Your task to perform on an android device: Is it going to rain today? Image 0: 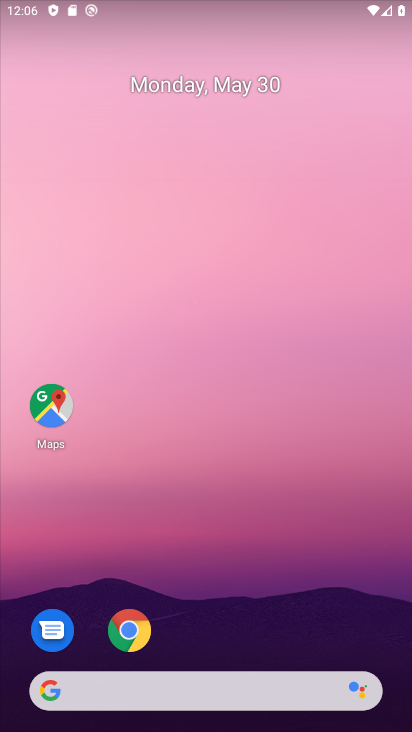
Step 0: press home button
Your task to perform on an android device: Is it going to rain today? Image 1: 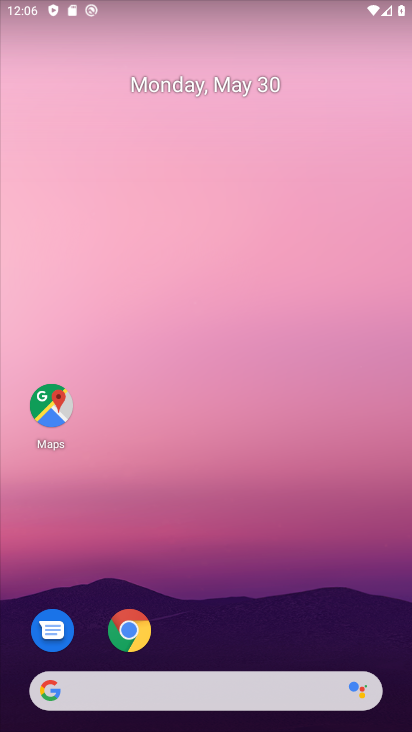
Step 1: click (320, 48)
Your task to perform on an android device: Is it going to rain today? Image 2: 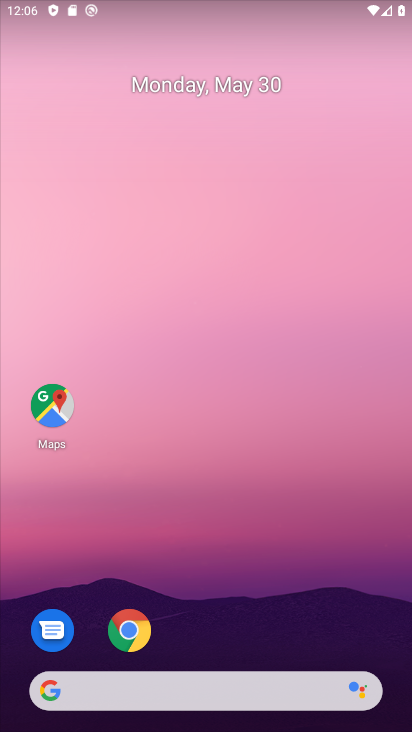
Step 2: drag from (197, 686) to (259, 145)
Your task to perform on an android device: Is it going to rain today? Image 3: 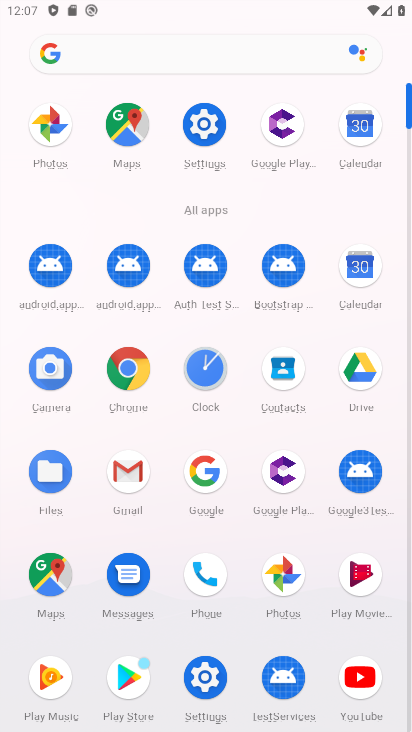
Step 3: click (207, 473)
Your task to perform on an android device: Is it going to rain today? Image 4: 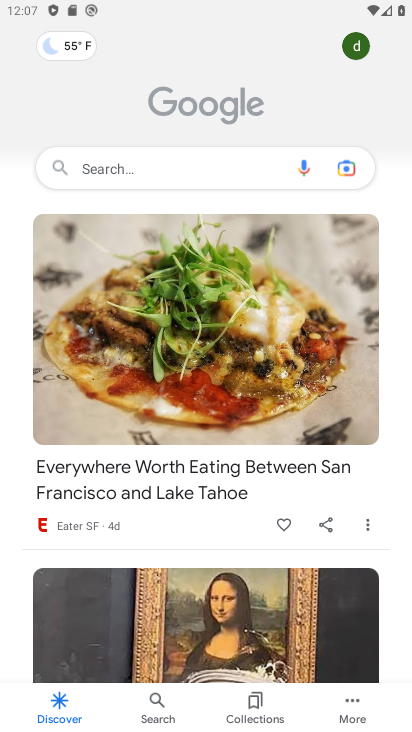
Step 4: click (73, 44)
Your task to perform on an android device: Is it going to rain today? Image 5: 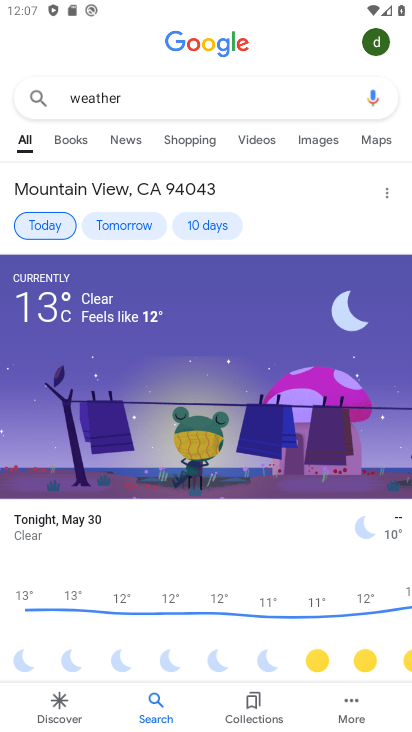
Step 5: task complete